Your task to perform on an android device: What is the news today? Image 0: 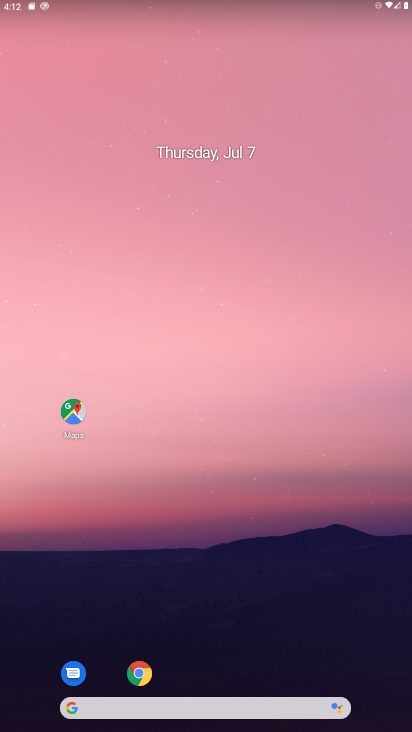
Step 0: press home button
Your task to perform on an android device: What is the news today? Image 1: 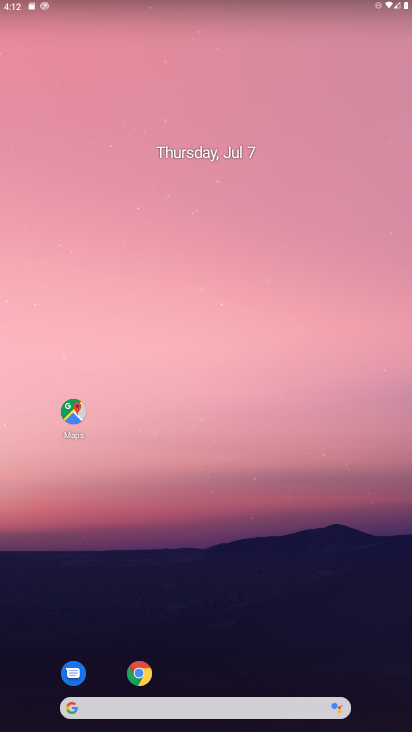
Step 1: task complete